Your task to perform on an android device: toggle notification dots Image 0: 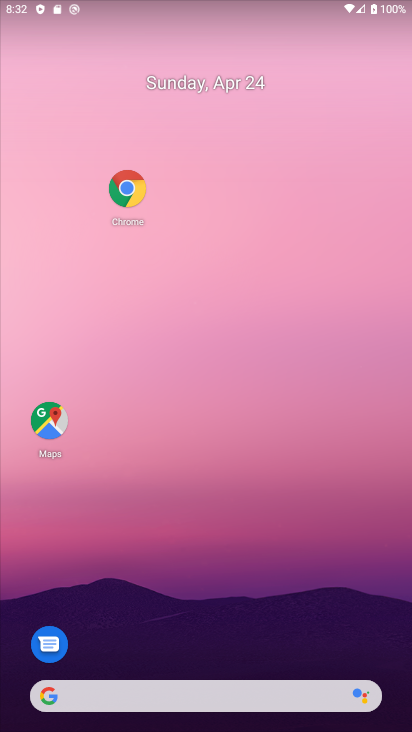
Step 0: drag from (329, 298) to (30, 2)
Your task to perform on an android device: toggle notification dots Image 1: 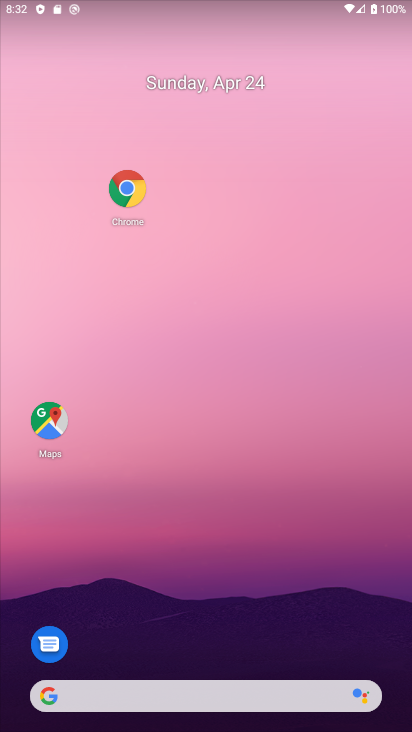
Step 1: drag from (219, 622) to (382, 126)
Your task to perform on an android device: toggle notification dots Image 2: 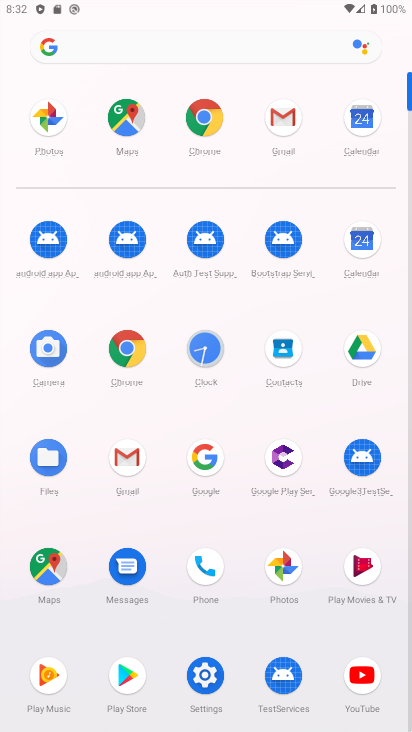
Step 2: click (189, 664)
Your task to perform on an android device: toggle notification dots Image 3: 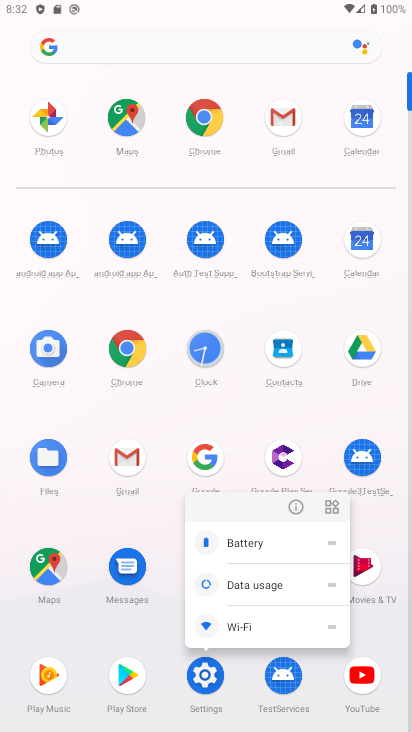
Step 3: click (285, 507)
Your task to perform on an android device: toggle notification dots Image 4: 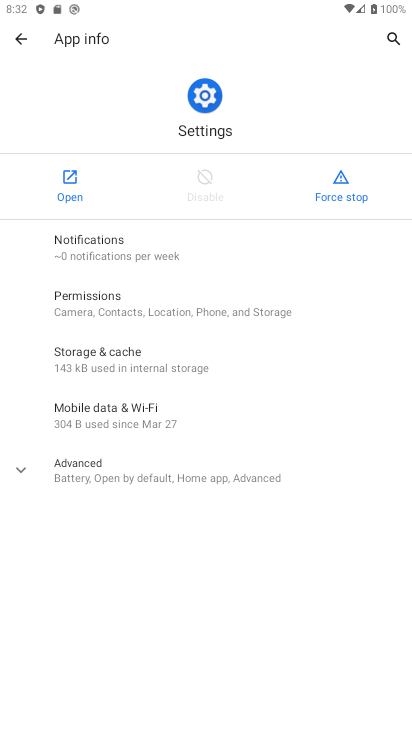
Step 4: click (59, 166)
Your task to perform on an android device: toggle notification dots Image 5: 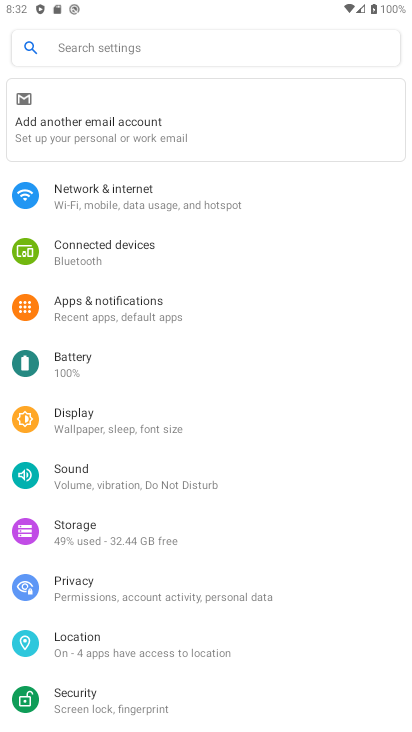
Step 5: click (164, 306)
Your task to perform on an android device: toggle notification dots Image 6: 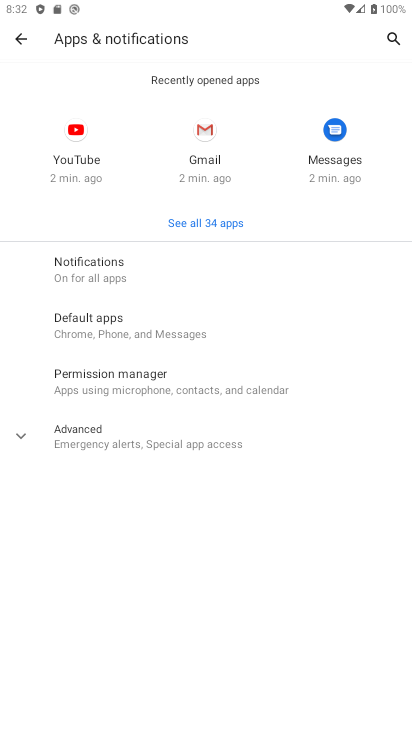
Step 6: click (134, 278)
Your task to perform on an android device: toggle notification dots Image 7: 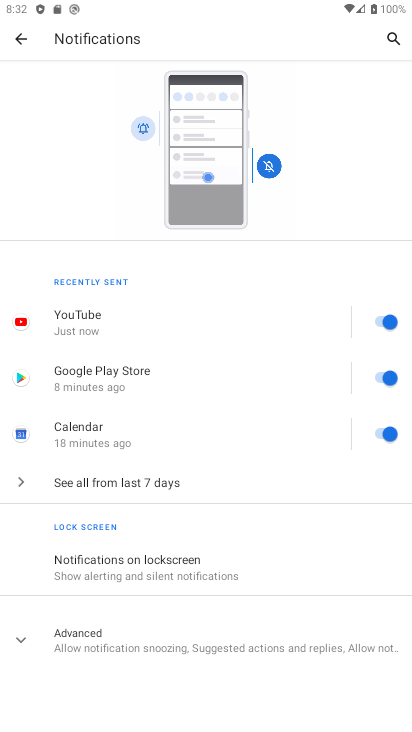
Step 7: drag from (304, 567) to (293, 270)
Your task to perform on an android device: toggle notification dots Image 8: 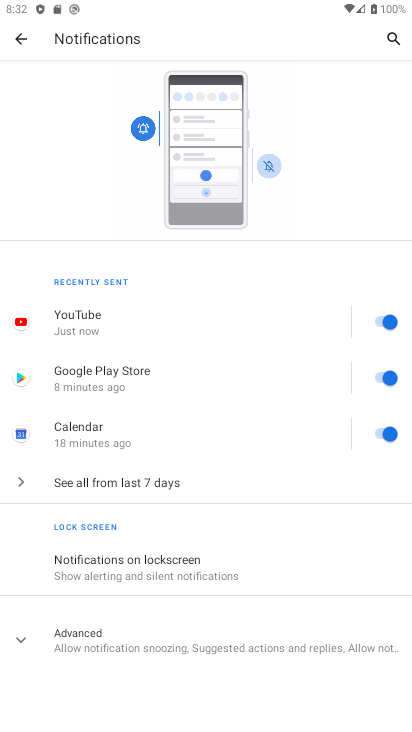
Step 8: click (139, 662)
Your task to perform on an android device: toggle notification dots Image 9: 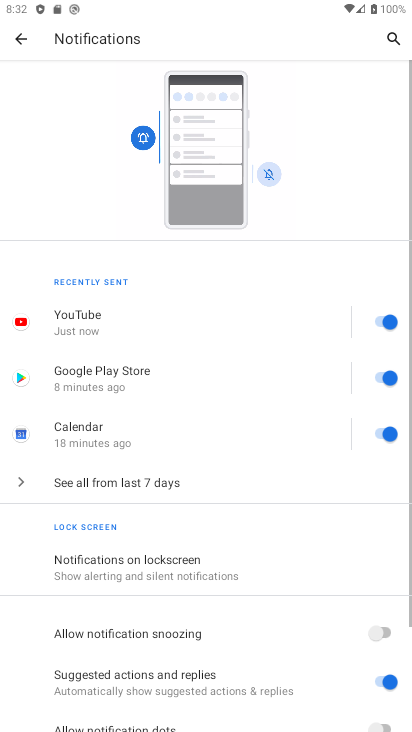
Step 9: drag from (171, 633) to (247, 241)
Your task to perform on an android device: toggle notification dots Image 10: 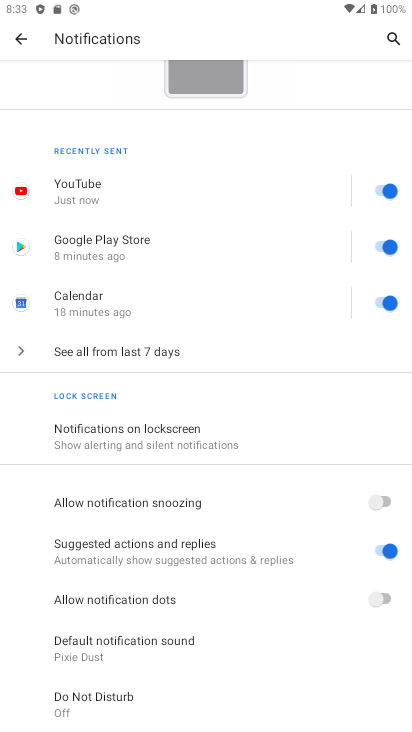
Step 10: click (339, 599)
Your task to perform on an android device: toggle notification dots Image 11: 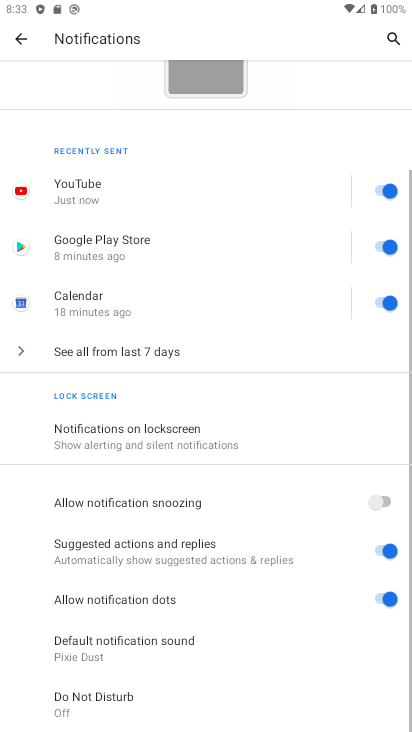
Step 11: task complete